Your task to perform on an android device: open wifi settings Image 0: 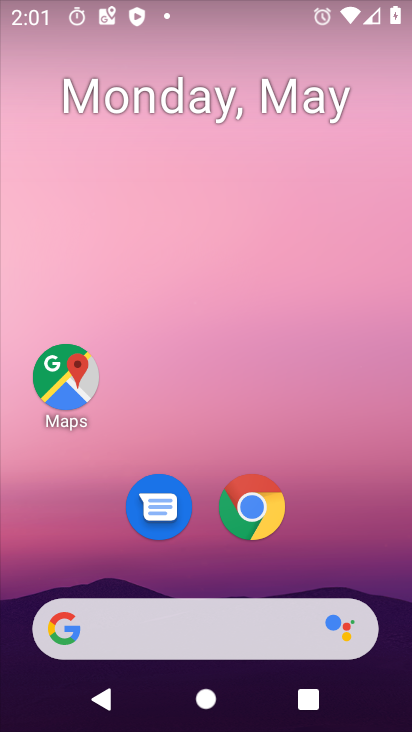
Step 0: drag from (251, 724) to (253, 87)
Your task to perform on an android device: open wifi settings Image 1: 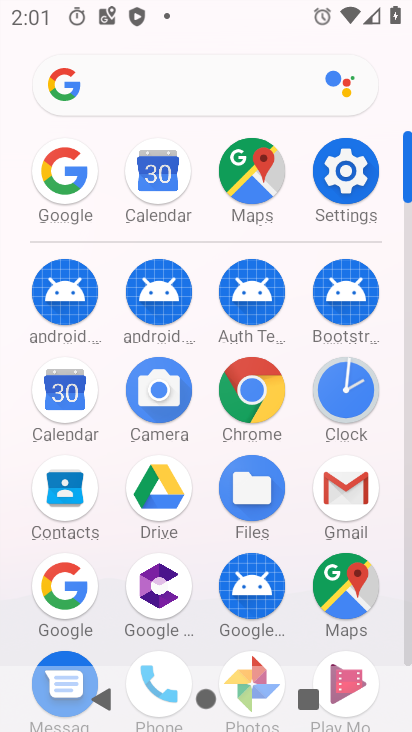
Step 1: click (352, 158)
Your task to perform on an android device: open wifi settings Image 2: 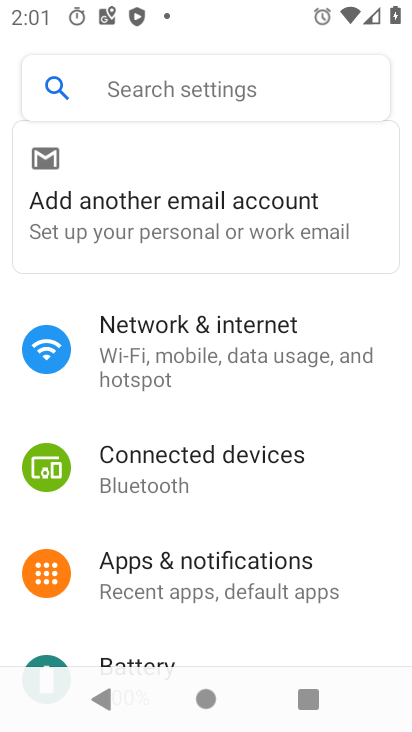
Step 2: click (165, 332)
Your task to perform on an android device: open wifi settings Image 3: 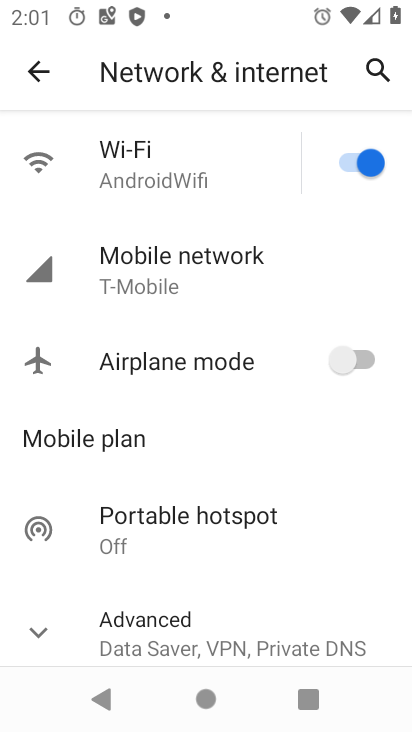
Step 3: click (123, 169)
Your task to perform on an android device: open wifi settings Image 4: 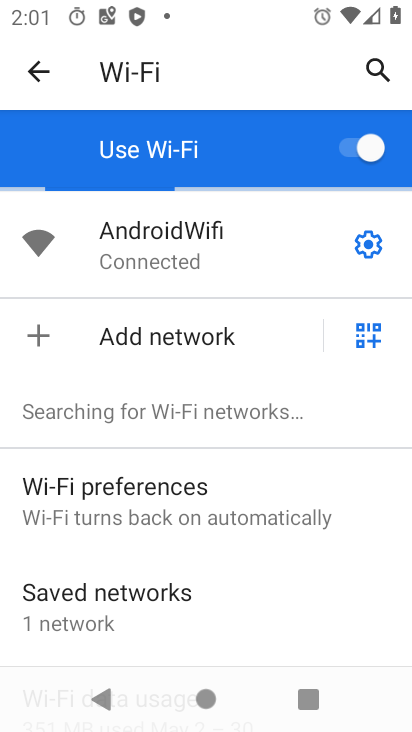
Step 4: task complete